Your task to perform on an android device: open a bookmark in the chrome app Image 0: 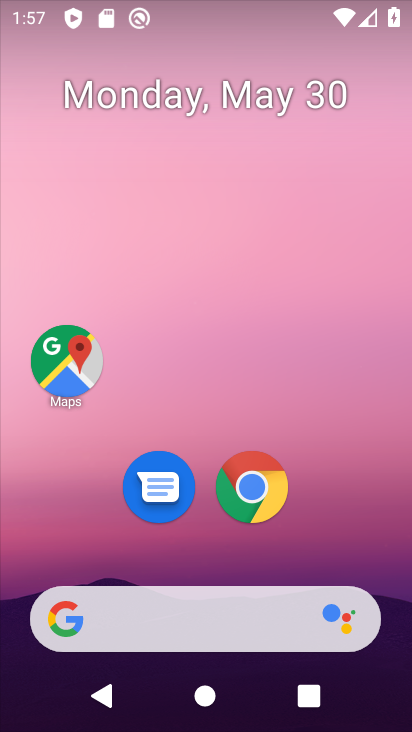
Step 0: drag from (223, 541) to (290, 17)
Your task to perform on an android device: open a bookmark in the chrome app Image 1: 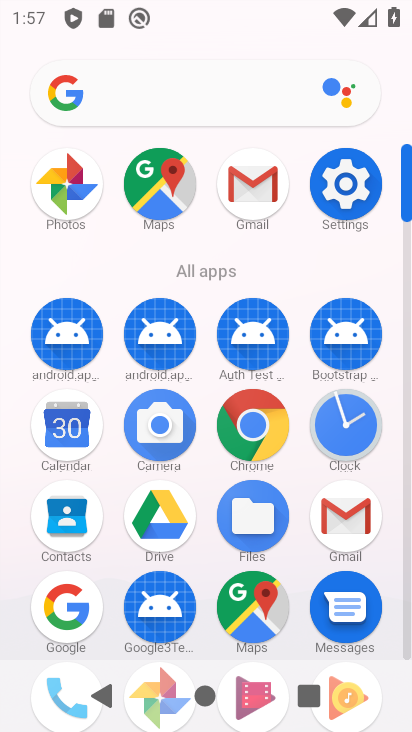
Step 1: click (261, 421)
Your task to perform on an android device: open a bookmark in the chrome app Image 2: 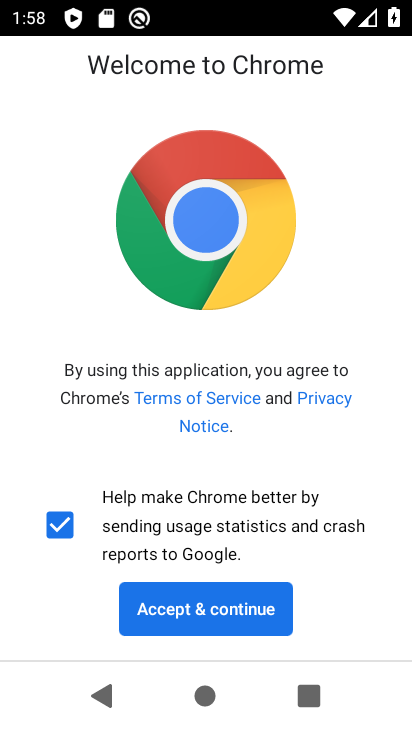
Step 2: click (182, 618)
Your task to perform on an android device: open a bookmark in the chrome app Image 3: 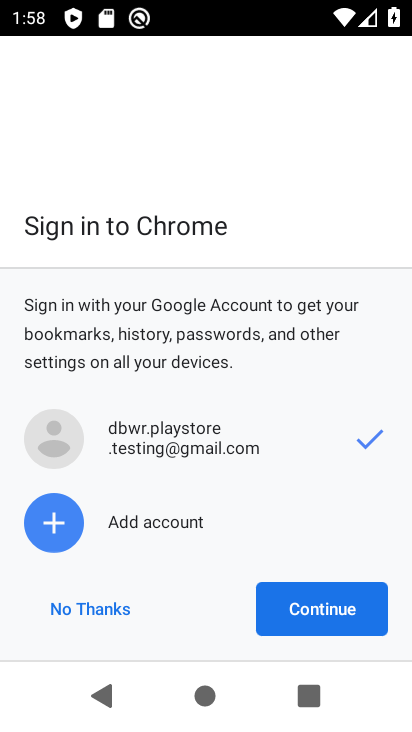
Step 3: click (336, 614)
Your task to perform on an android device: open a bookmark in the chrome app Image 4: 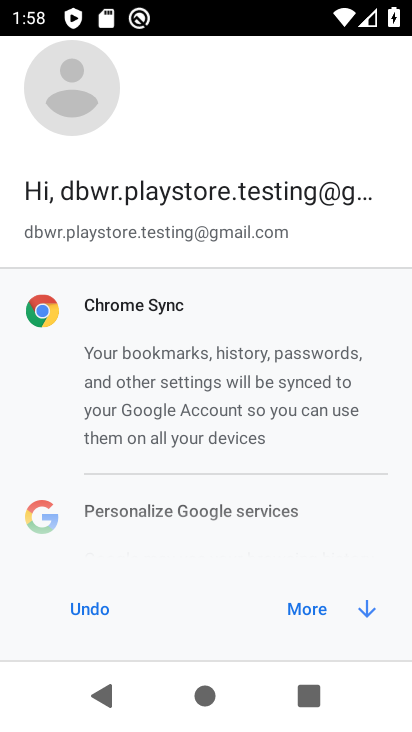
Step 4: click (317, 609)
Your task to perform on an android device: open a bookmark in the chrome app Image 5: 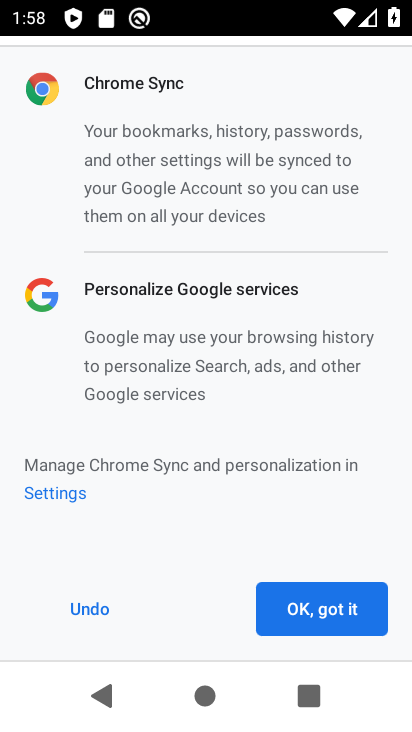
Step 5: click (317, 609)
Your task to perform on an android device: open a bookmark in the chrome app Image 6: 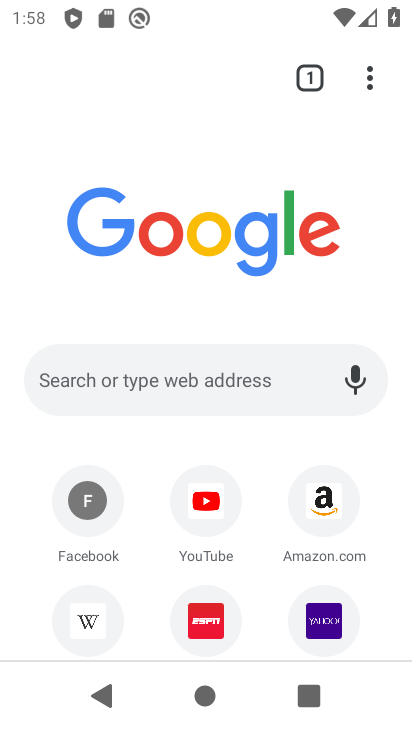
Step 6: click (368, 83)
Your task to perform on an android device: open a bookmark in the chrome app Image 7: 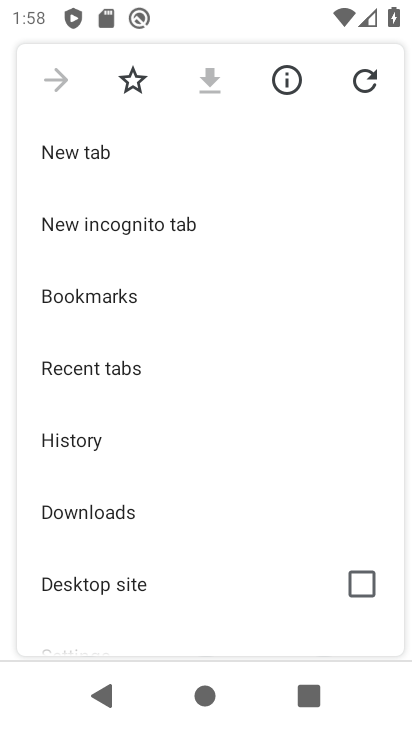
Step 7: click (103, 300)
Your task to perform on an android device: open a bookmark in the chrome app Image 8: 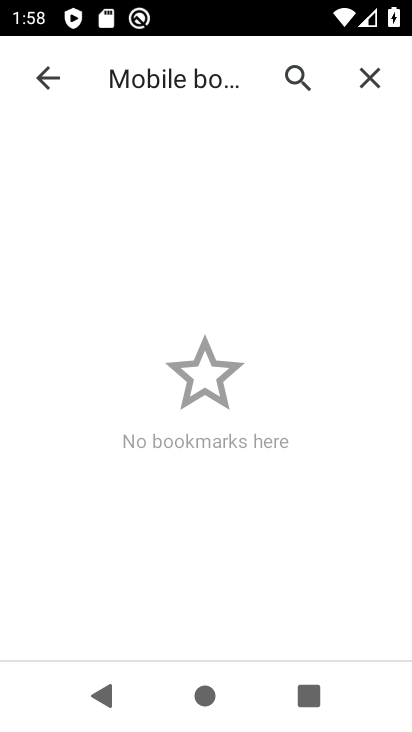
Step 8: task complete